Your task to perform on an android device: When is my next meeting? Image 0: 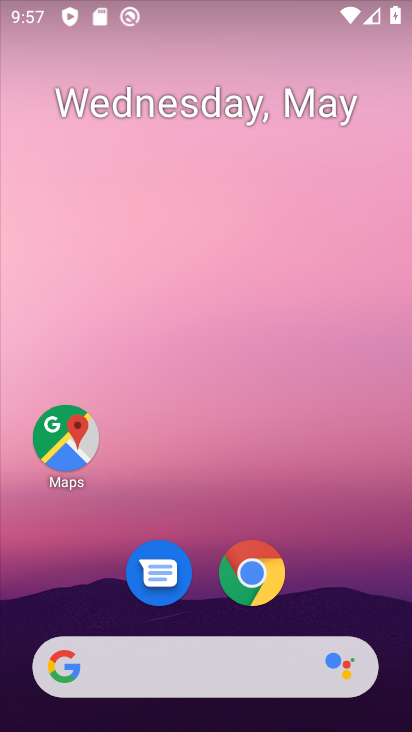
Step 0: click (125, 54)
Your task to perform on an android device: When is my next meeting? Image 1: 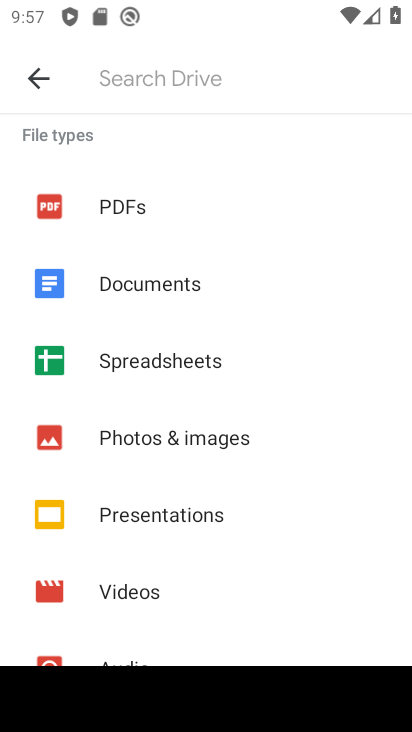
Step 1: click (32, 69)
Your task to perform on an android device: When is my next meeting? Image 2: 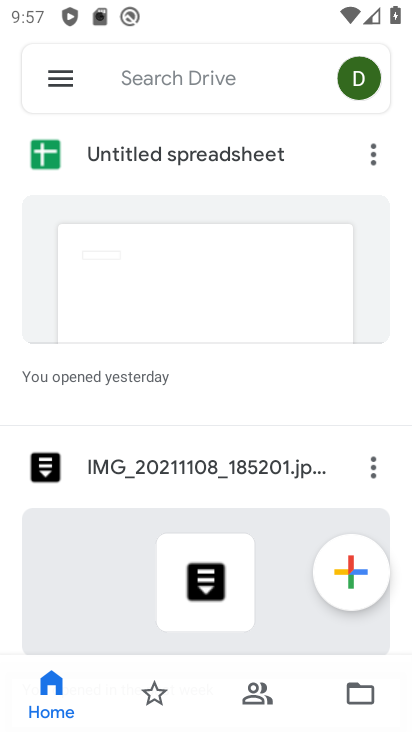
Step 2: press back button
Your task to perform on an android device: When is my next meeting? Image 3: 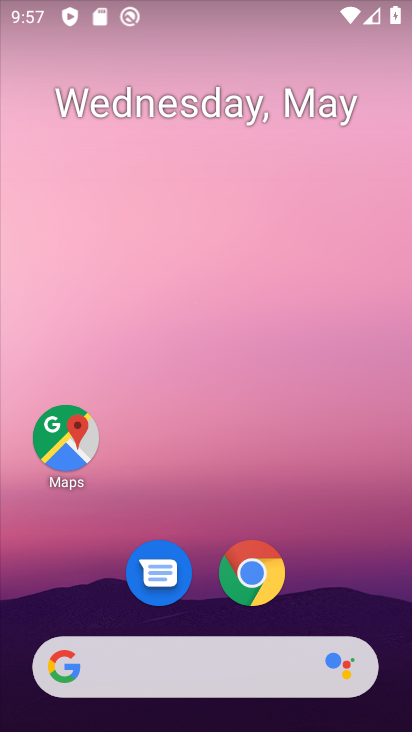
Step 3: drag from (361, 585) to (115, 30)
Your task to perform on an android device: When is my next meeting? Image 4: 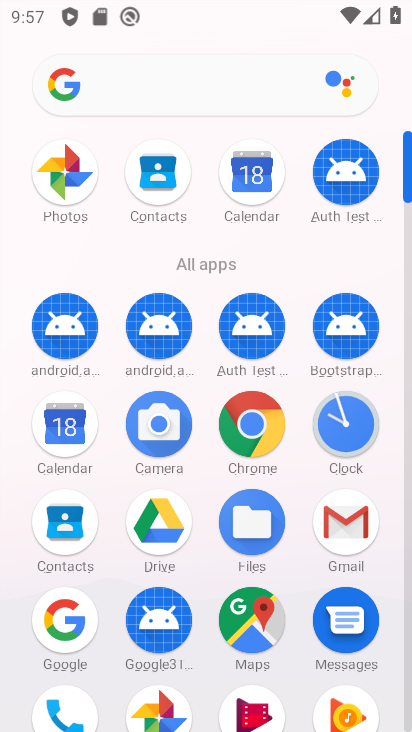
Step 4: click (70, 431)
Your task to perform on an android device: When is my next meeting? Image 5: 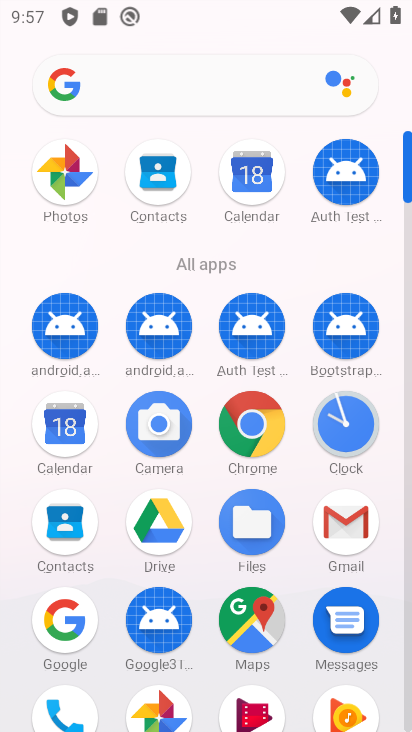
Step 5: click (70, 431)
Your task to perform on an android device: When is my next meeting? Image 6: 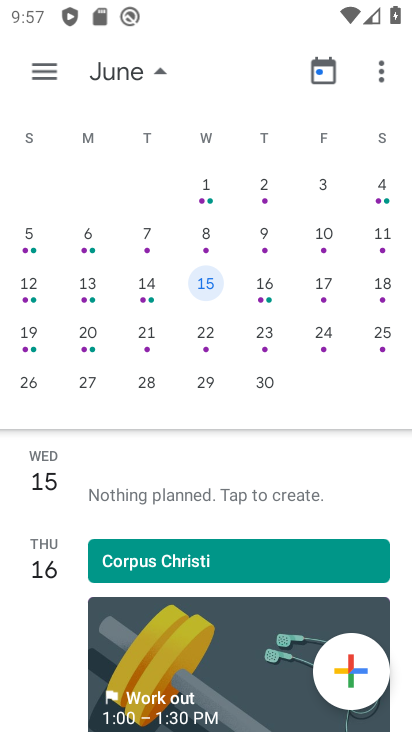
Step 6: drag from (134, 526) to (99, 125)
Your task to perform on an android device: When is my next meeting? Image 7: 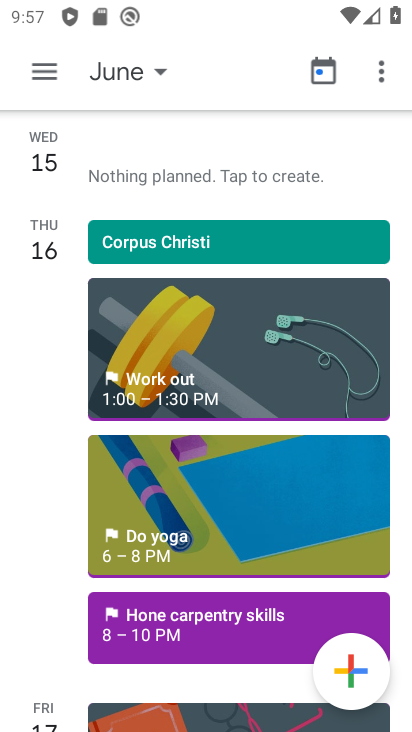
Step 7: drag from (219, 404) to (205, 89)
Your task to perform on an android device: When is my next meeting? Image 8: 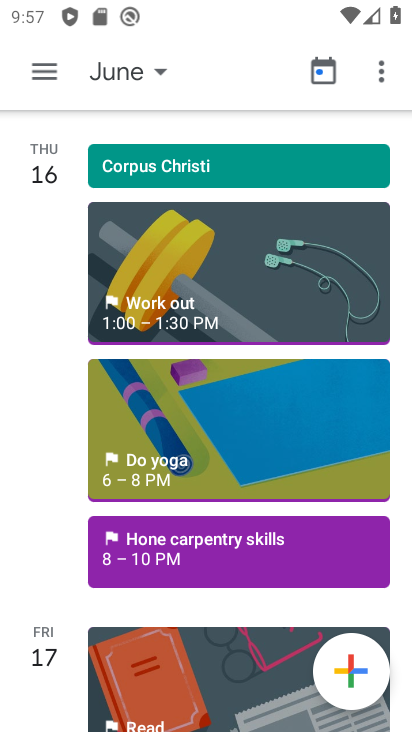
Step 8: drag from (157, 615) to (154, 207)
Your task to perform on an android device: When is my next meeting? Image 9: 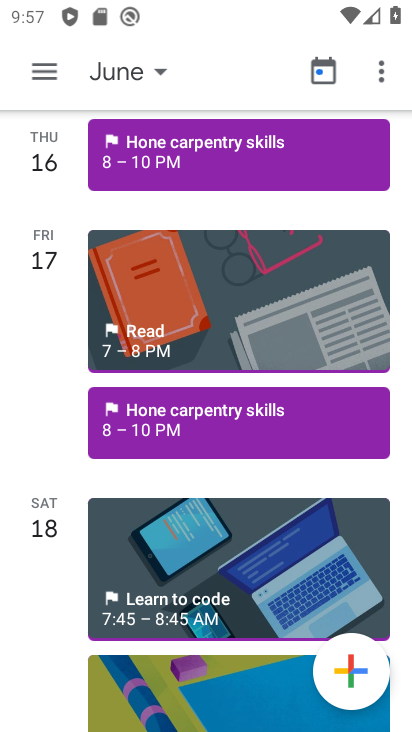
Step 9: drag from (204, 422) to (204, 101)
Your task to perform on an android device: When is my next meeting? Image 10: 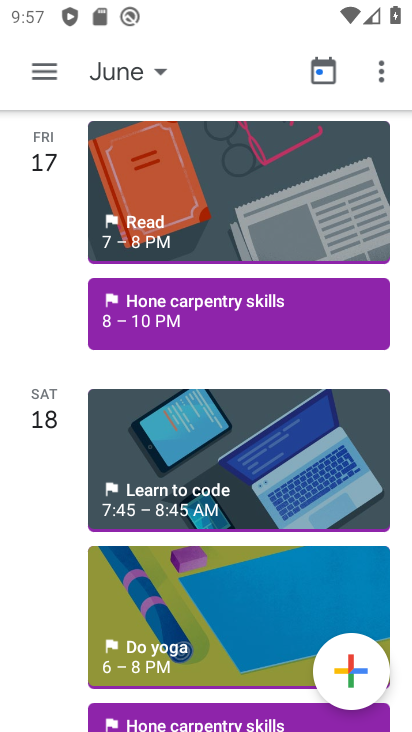
Step 10: click (156, 451)
Your task to perform on an android device: When is my next meeting? Image 11: 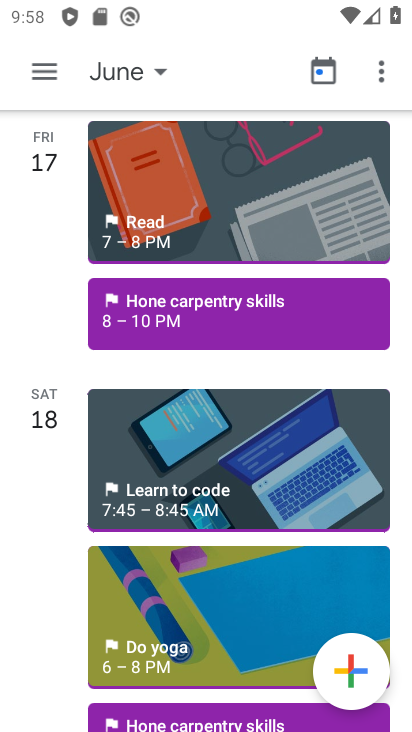
Step 11: click (174, 452)
Your task to perform on an android device: When is my next meeting? Image 12: 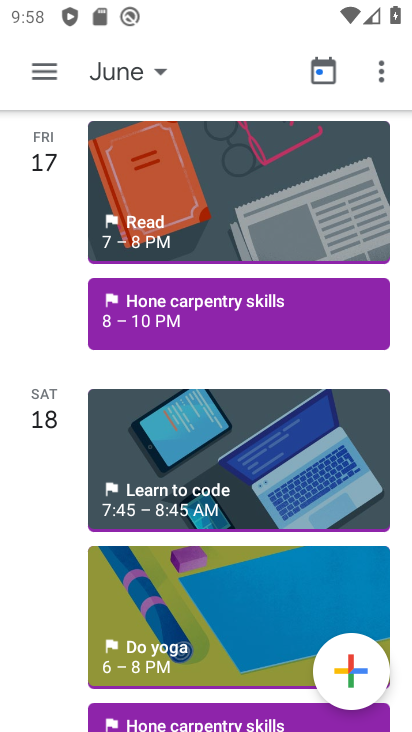
Step 12: click (196, 458)
Your task to perform on an android device: When is my next meeting? Image 13: 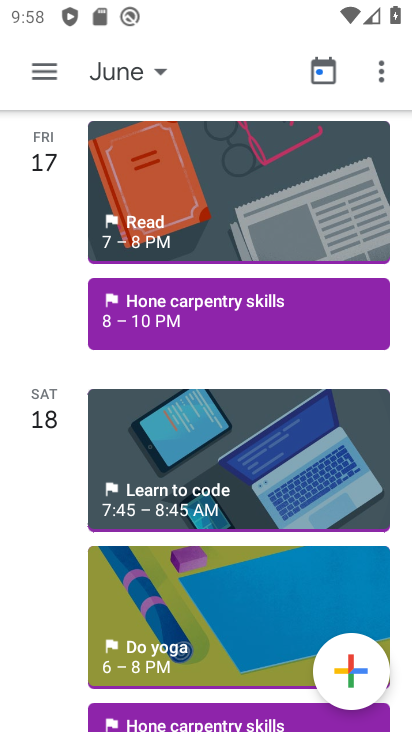
Step 13: click (211, 462)
Your task to perform on an android device: When is my next meeting? Image 14: 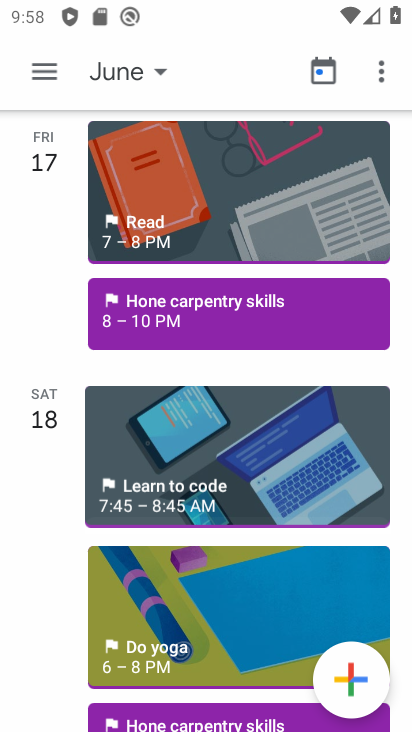
Step 14: click (275, 444)
Your task to perform on an android device: When is my next meeting? Image 15: 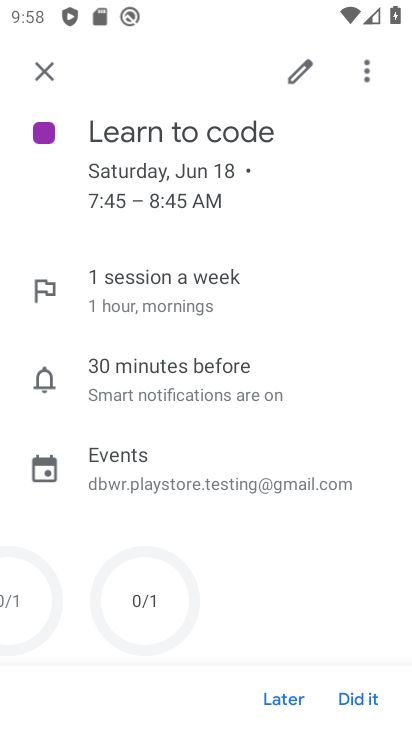
Step 15: click (286, 459)
Your task to perform on an android device: When is my next meeting? Image 16: 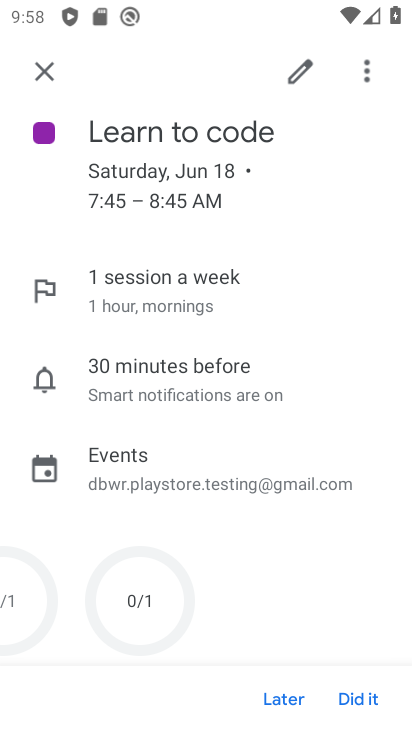
Step 16: click (47, 70)
Your task to perform on an android device: When is my next meeting? Image 17: 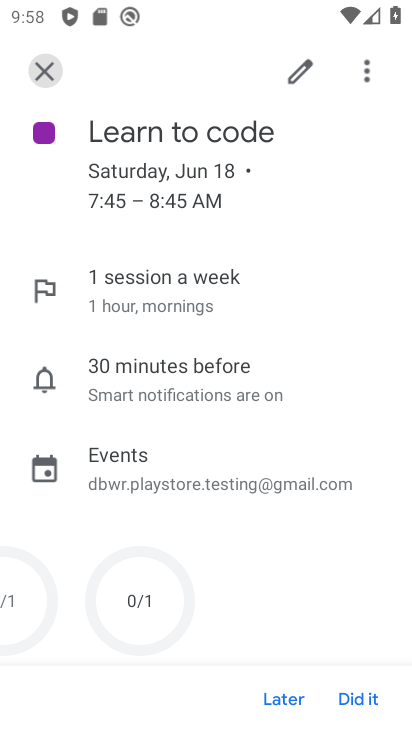
Step 17: click (47, 70)
Your task to perform on an android device: When is my next meeting? Image 18: 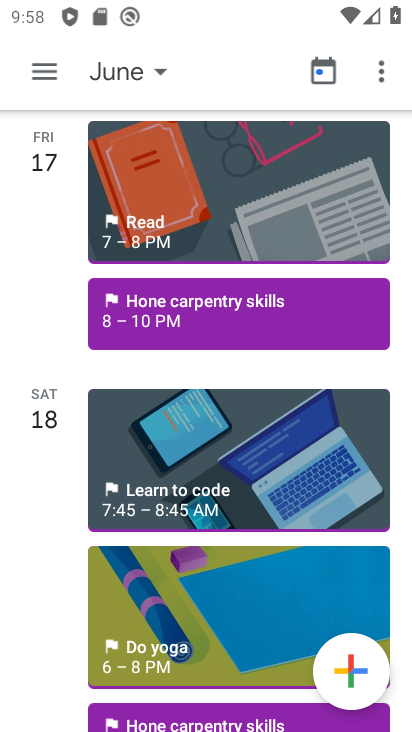
Step 18: click (47, 69)
Your task to perform on an android device: When is my next meeting? Image 19: 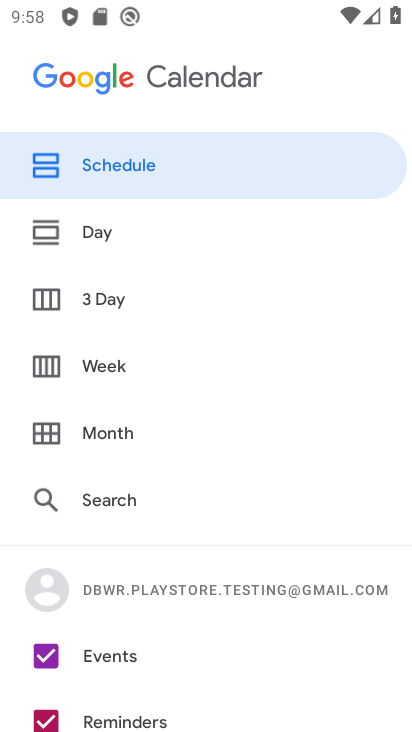
Step 19: task complete